Your task to perform on an android device: open wifi settings Image 0: 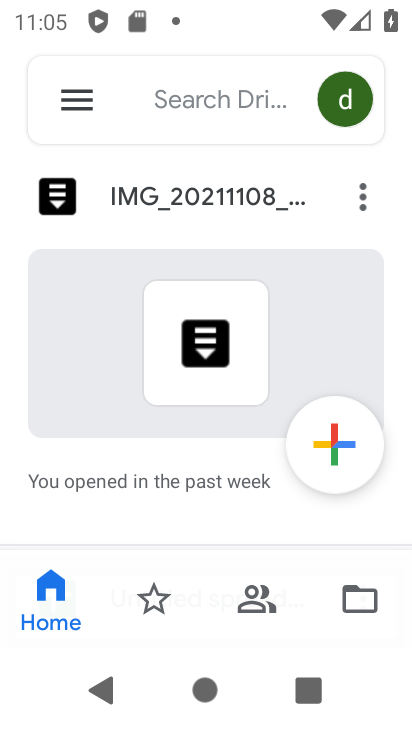
Step 0: press home button
Your task to perform on an android device: open wifi settings Image 1: 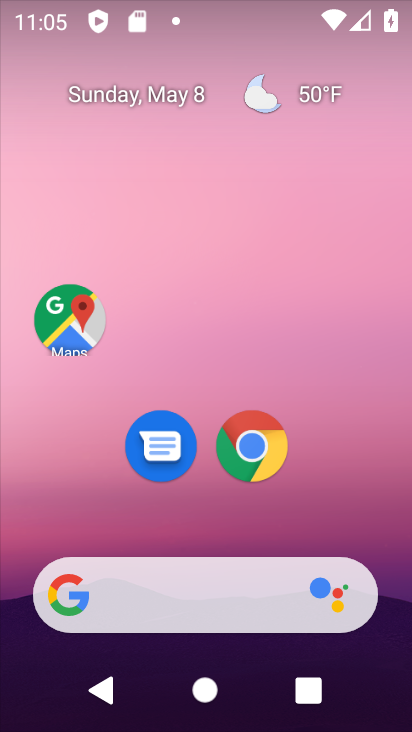
Step 1: drag from (308, 517) to (212, 105)
Your task to perform on an android device: open wifi settings Image 2: 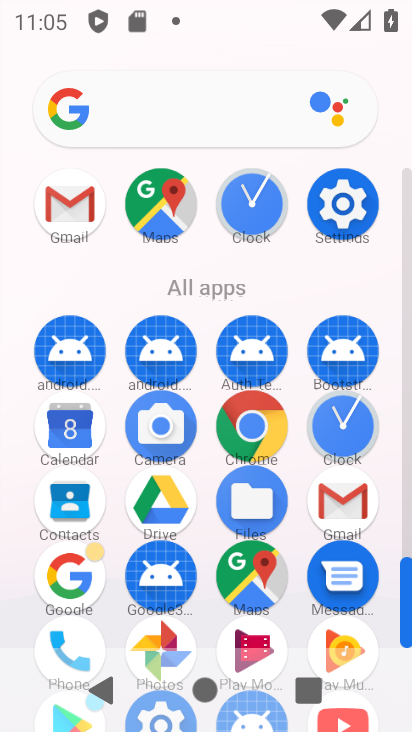
Step 2: click (330, 207)
Your task to perform on an android device: open wifi settings Image 3: 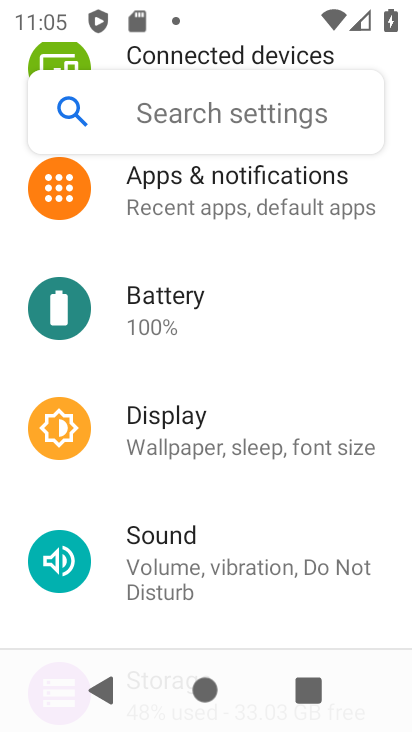
Step 3: drag from (206, 246) to (235, 327)
Your task to perform on an android device: open wifi settings Image 4: 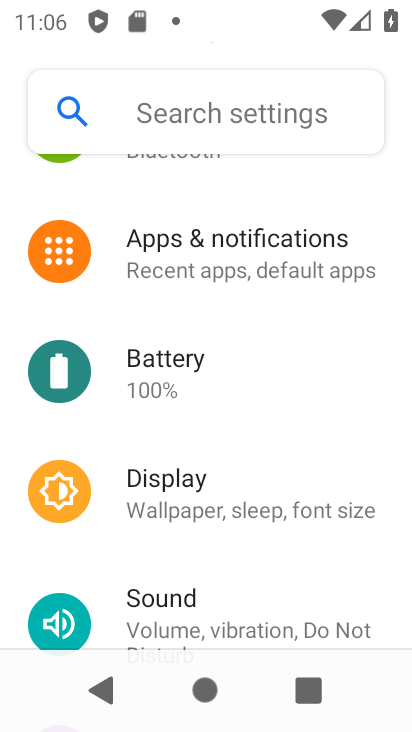
Step 4: drag from (230, 273) to (261, 355)
Your task to perform on an android device: open wifi settings Image 5: 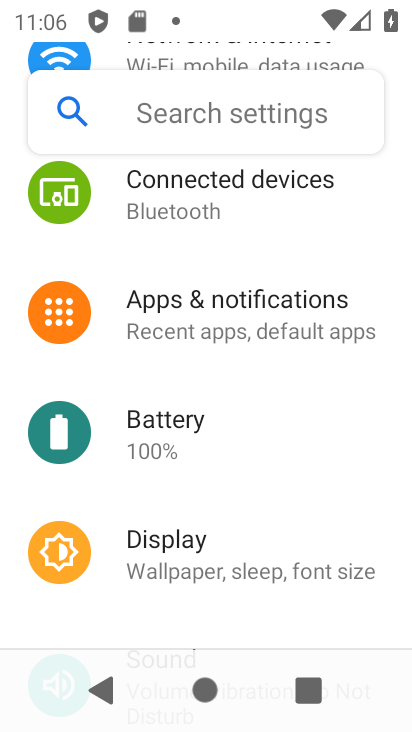
Step 5: drag from (232, 247) to (256, 363)
Your task to perform on an android device: open wifi settings Image 6: 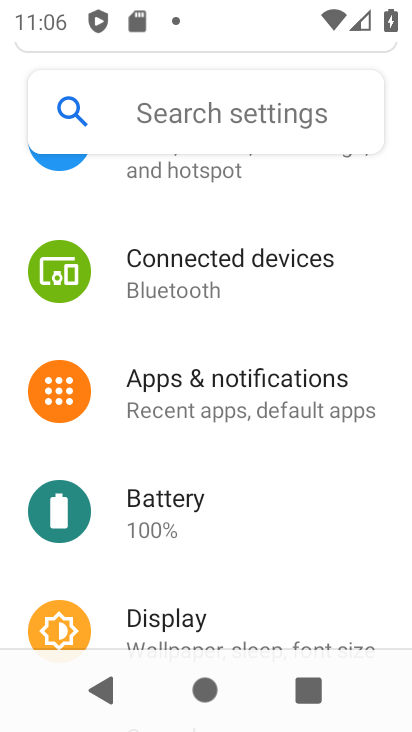
Step 6: drag from (238, 247) to (274, 353)
Your task to perform on an android device: open wifi settings Image 7: 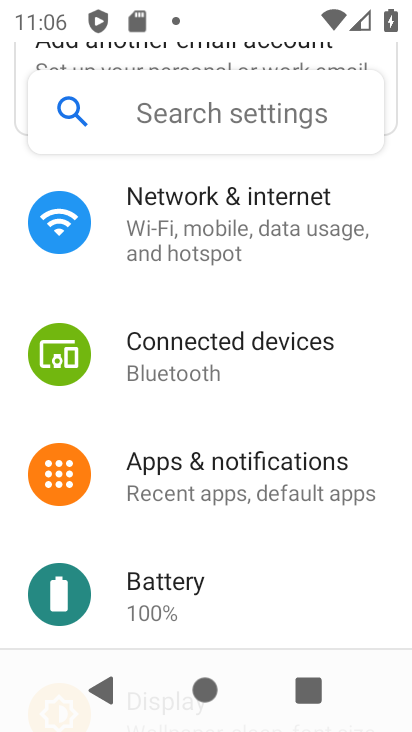
Step 7: click (230, 236)
Your task to perform on an android device: open wifi settings Image 8: 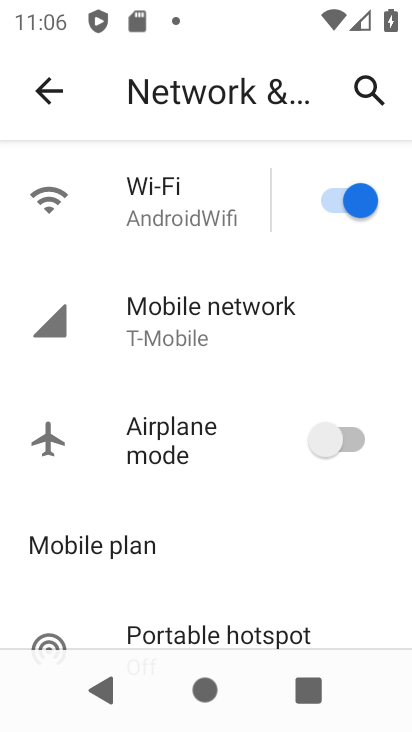
Step 8: click (179, 212)
Your task to perform on an android device: open wifi settings Image 9: 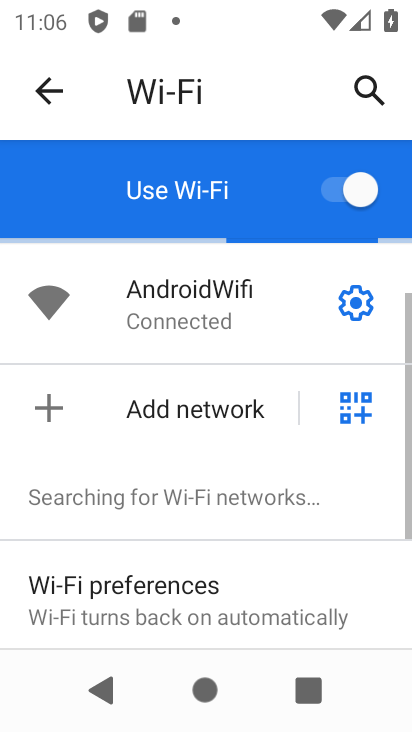
Step 9: task complete